Your task to perform on an android device: manage bookmarks in the chrome app Image 0: 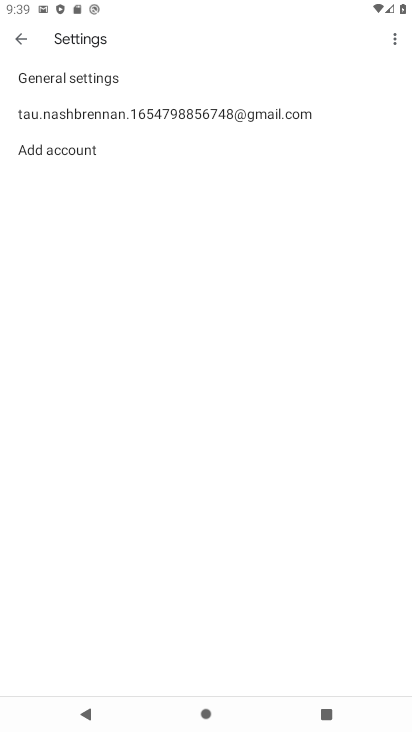
Step 0: press home button
Your task to perform on an android device: manage bookmarks in the chrome app Image 1: 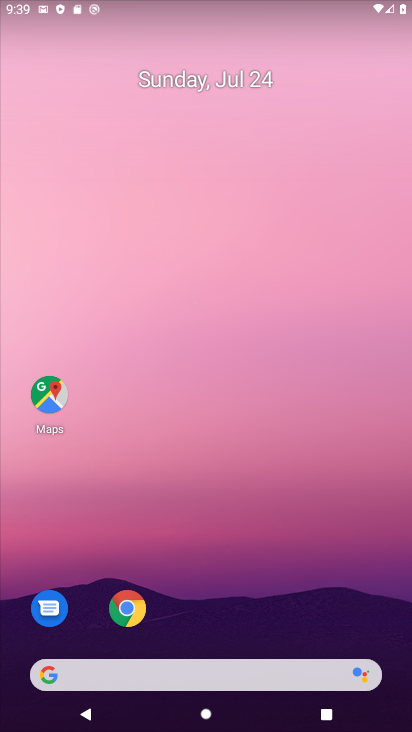
Step 1: click (125, 602)
Your task to perform on an android device: manage bookmarks in the chrome app Image 2: 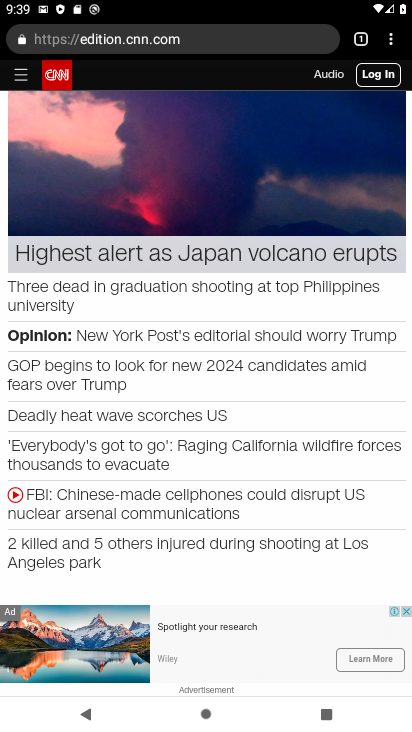
Step 2: click (390, 36)
Your task to perform on an android device: manage bookmarks in the chrome app Image 3: 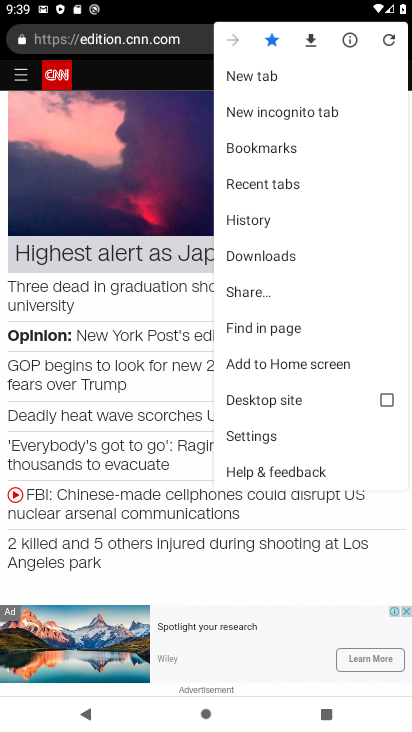
Step 3: click (306, 147)
Your task to perform on an android device: manage bookmarks in the chrome app Image 4: 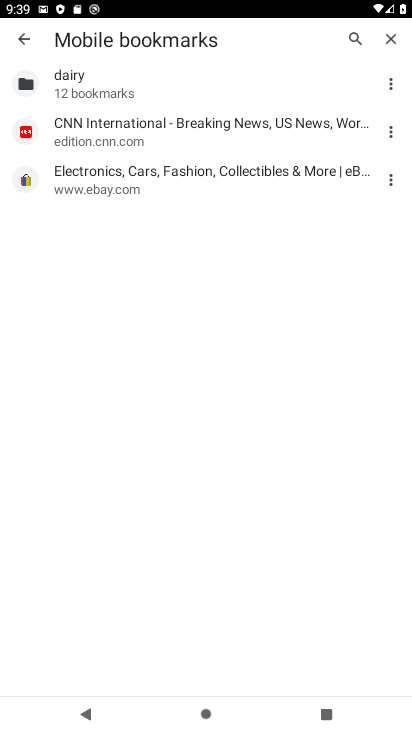
Step 4: click (390, 178)
Your task to perform on an android device: manage bookmarks in the chrome app Image 5: 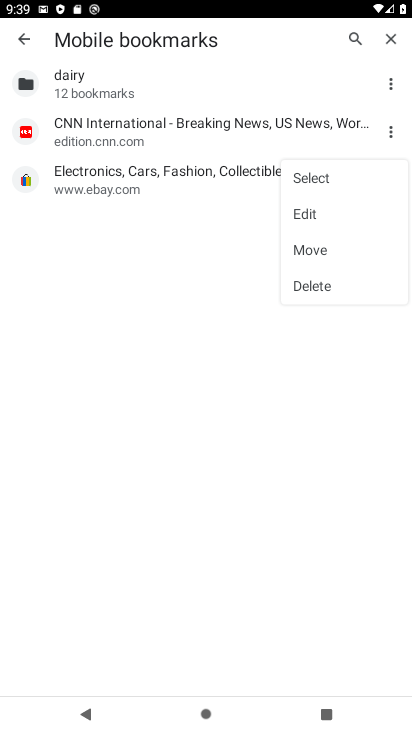
Step 5: click (328, 285)
Your task to perform on an android device: manage bookmarks in the chrome app Image 6: 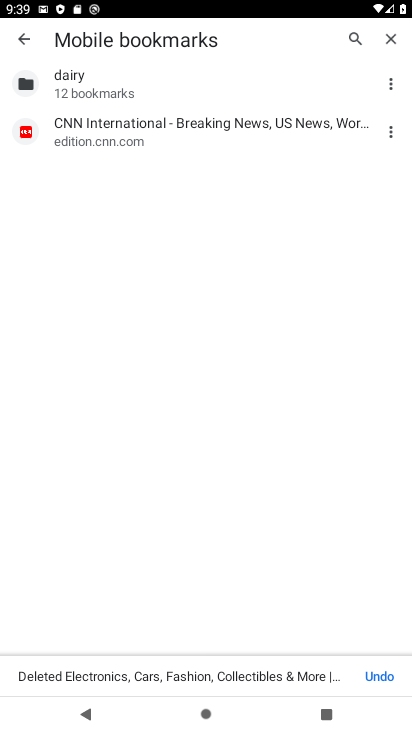
Step 6: task complete